Your task to perform on an android device: turn on sleep mode Image 0: 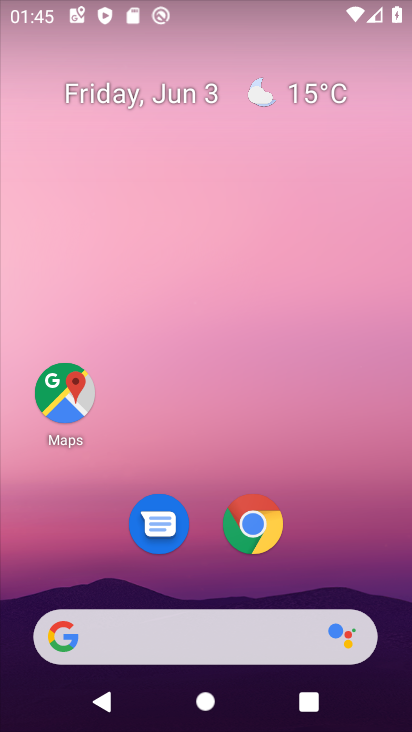
Step 0: drag from (214, 457) to (293, 27)
Your task to perform on an android device: turn on sleep mode Image 1: 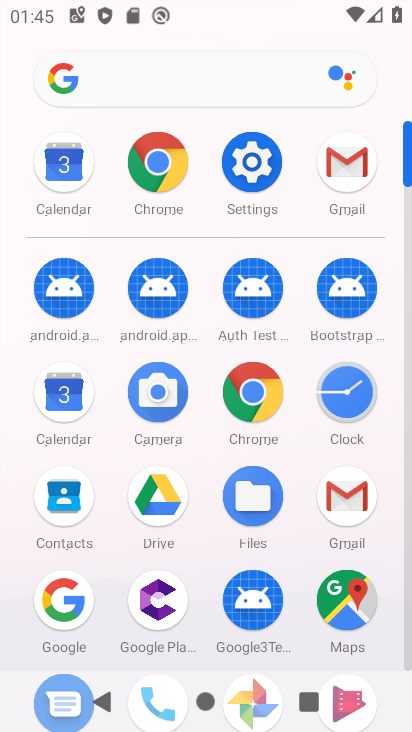
Step 1: click (257, 166)
Your task to perform on an android device: turn on sleep mode Image 2: 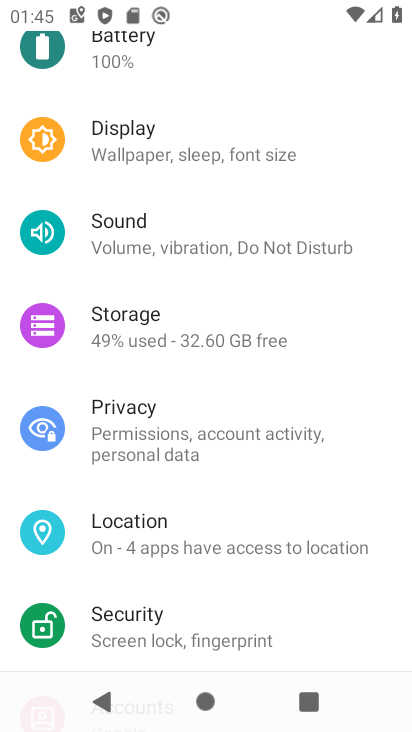
Step 2: click (247, 150)
Your task to perform on an android device: turn on sleep mode Image 3: 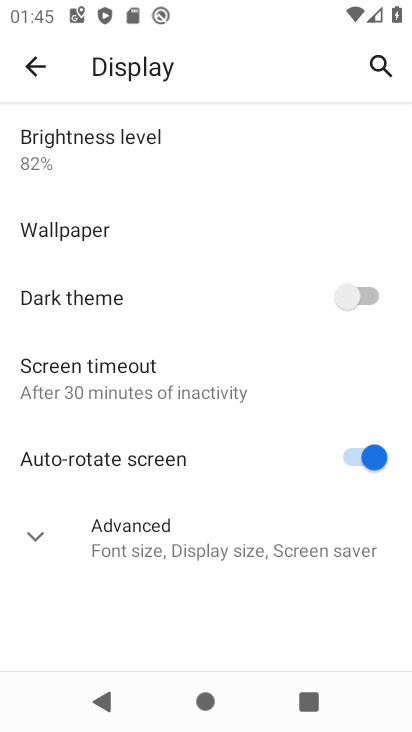
Step 3: click (41, 537)
Your task to perform on an android device: turn on sleep mode Image 4: 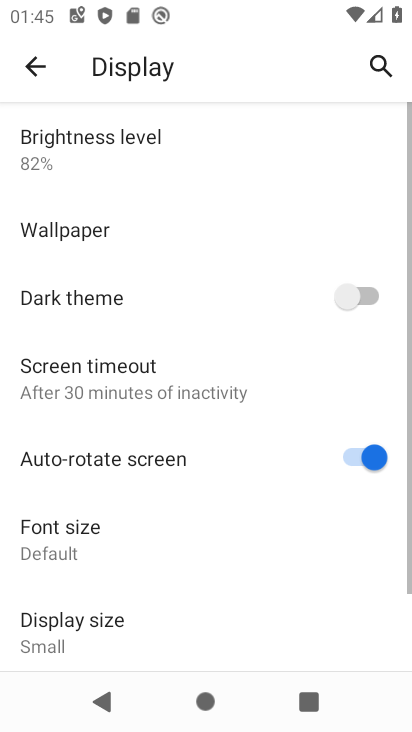
Step 4: task complete